Your task to perform on an android device: Go to Google Image 0: 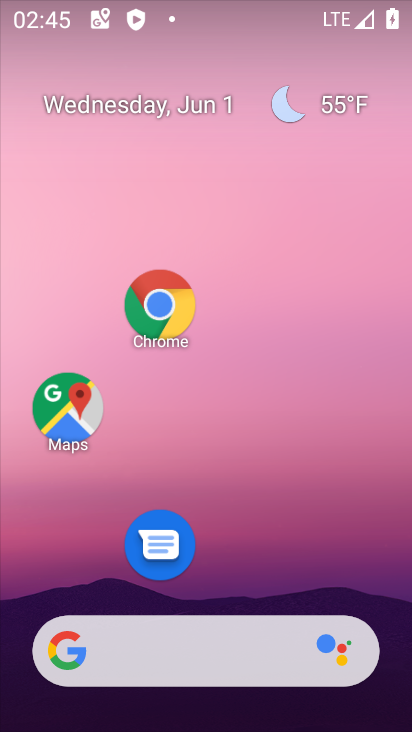
Step 0: drag from (239, 571) to (262, 173)
Your task to perform on an android device: Go to Google Image 1: 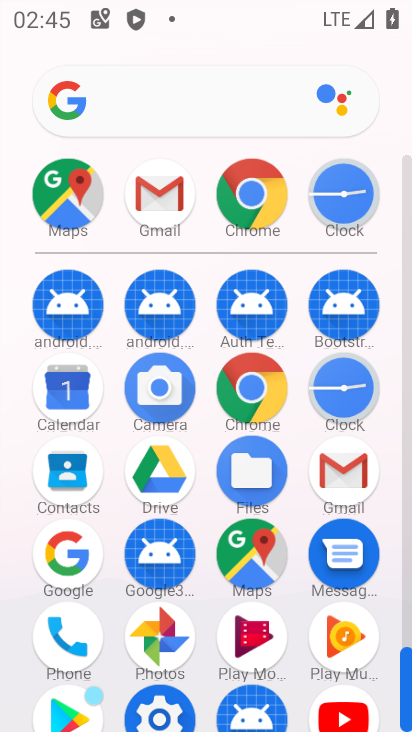
Step 1: click (69, 560)
Your task to perform on an android device: Go to Google Image 2: 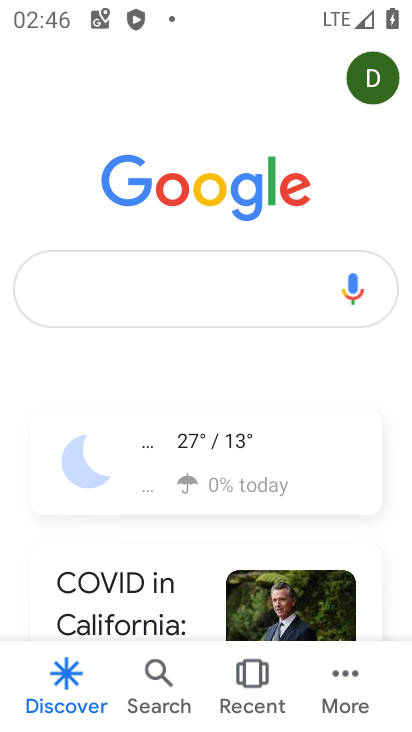
Step 2: task complete